Your task to perform on an android device: Open Maps and search for coffee Image 0: 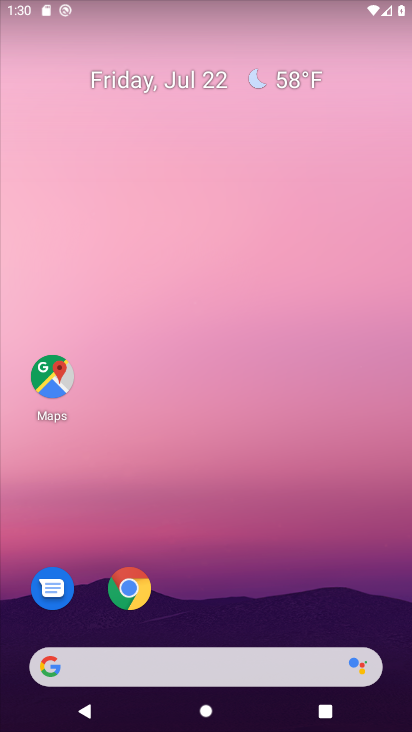
Step 0: drag from (245, 607) to (191, 154)
Your task to perform on an android device: Open Maps and search for coffee Image 1: 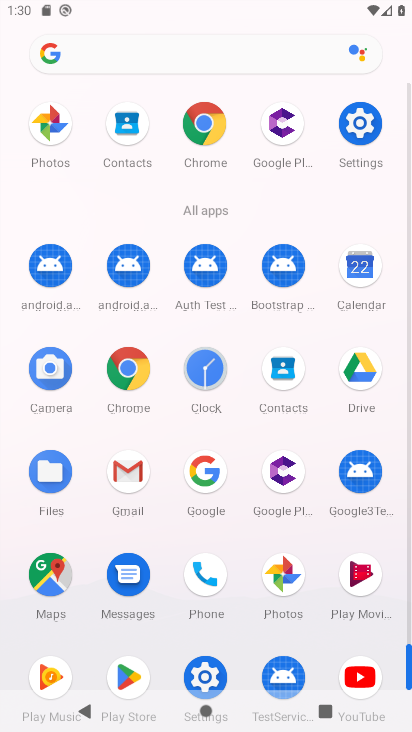
Step 1: click (38, 610)
Your task to perform on an android device: Open Maps and search for coffee Image 2: 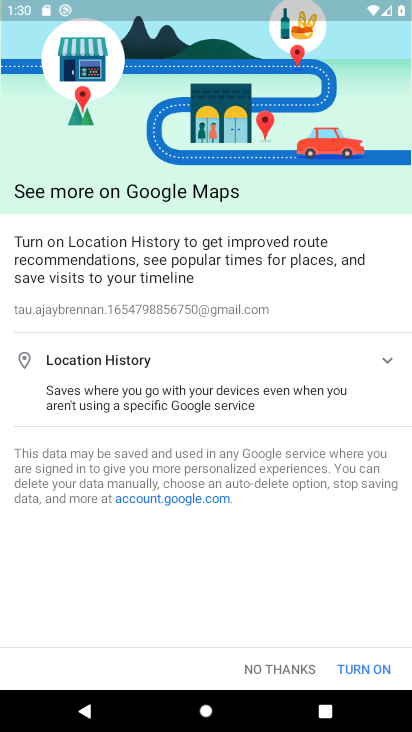
Step 2: click (361, 673)
Your task to perform on an android device: Open Maps and search for coffee Image 3: 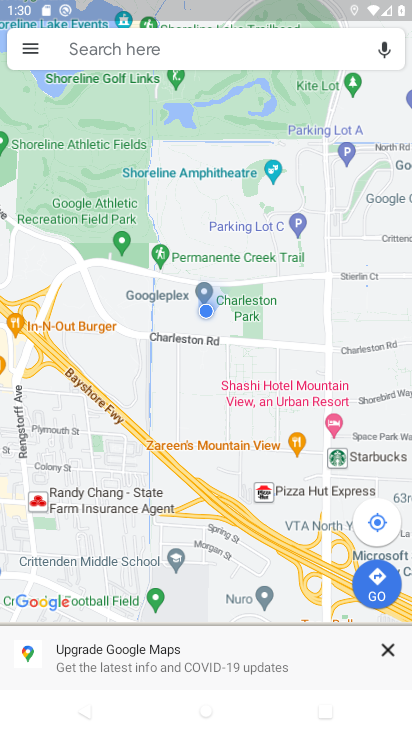
Step 3: click (247, 41)
Your task to perform on an android device: Open Maps and search for coffee Image 4: 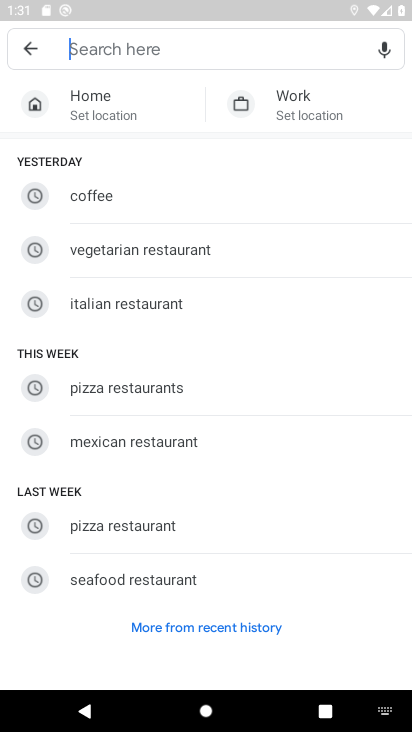
Step 4: type "Wikipedia"
Your task to perform on an android device: Open Maps and search for coffee Image 5: 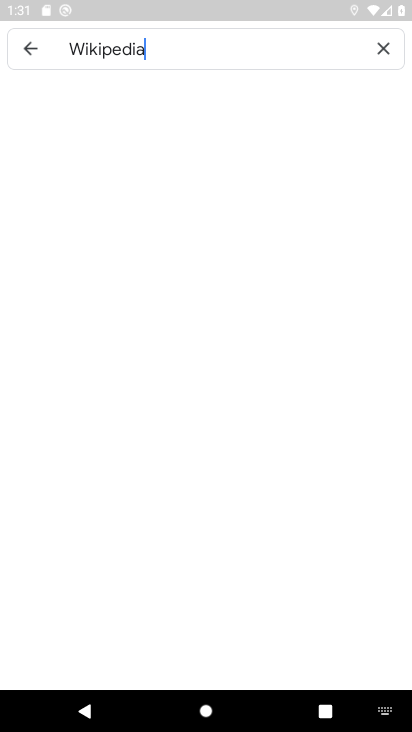
Step 5: type ""
Your task to perform on an android device: Open Maps and search for coffee Image 6: 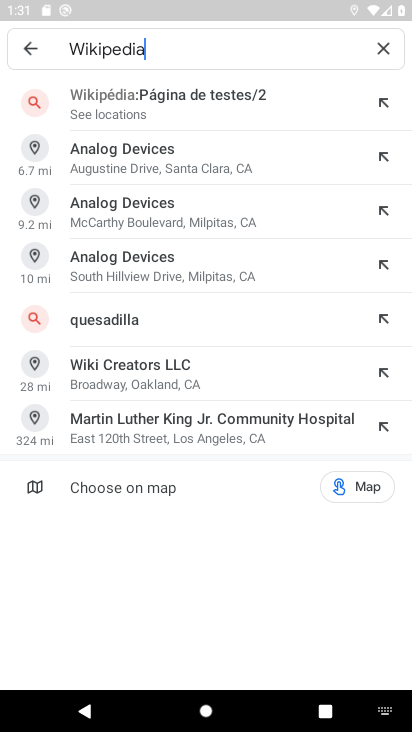
Step 6: click (382, 40)
Your task to perform on an android device: Open Maps and search for coffee Image 7: 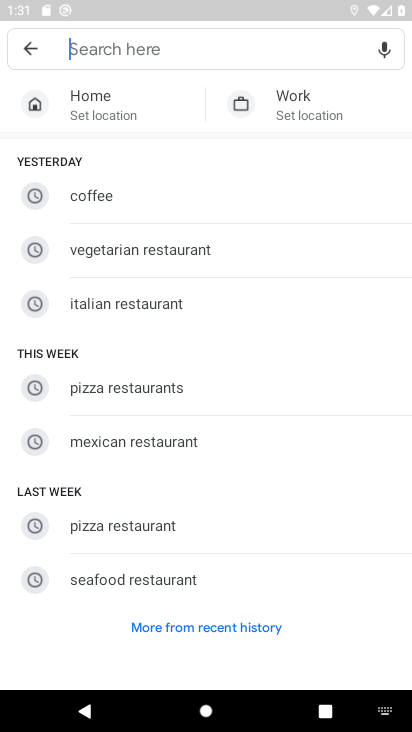
Step 7: click (139, 46)
Your task to perform on an android device: Open Maps and search for coffee Image 8: 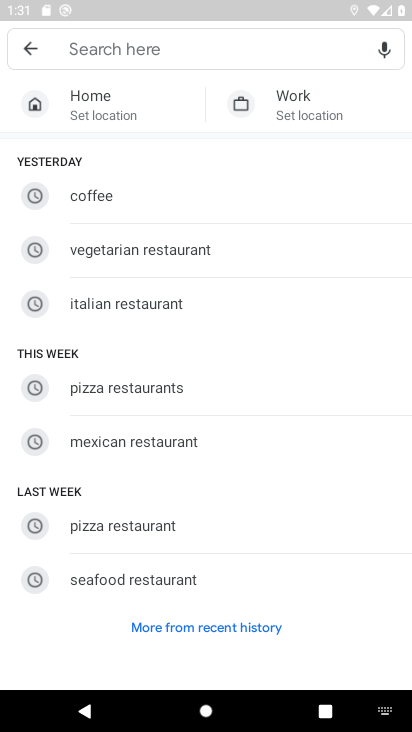
Step 8: click (299, 49)
Your task to perform on an android device: Open Maps and search for coffee Image 9: 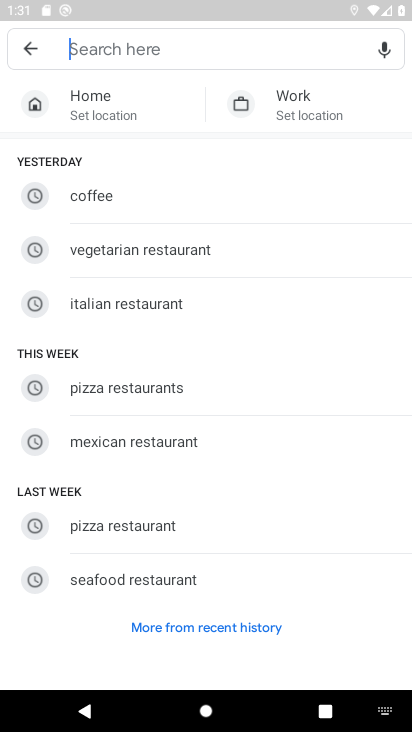
Step 9: type "coffee"
Your task to perform on an android device: Open Maps and search for coffee Image 10: 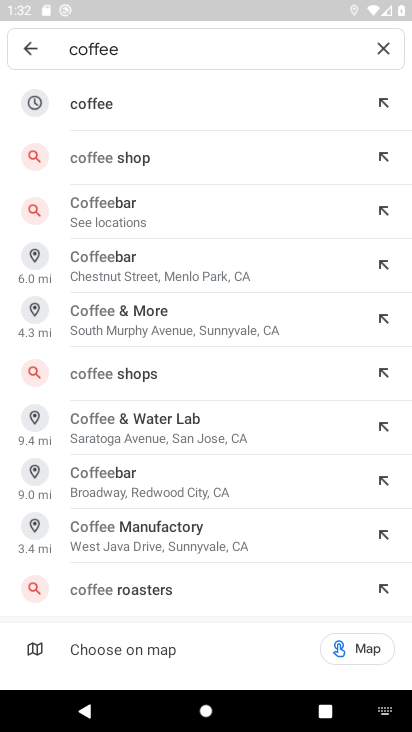
Step 10: click (99, 95)
Your task to perform on an android device: Open Maps and search for coffee Image 11: 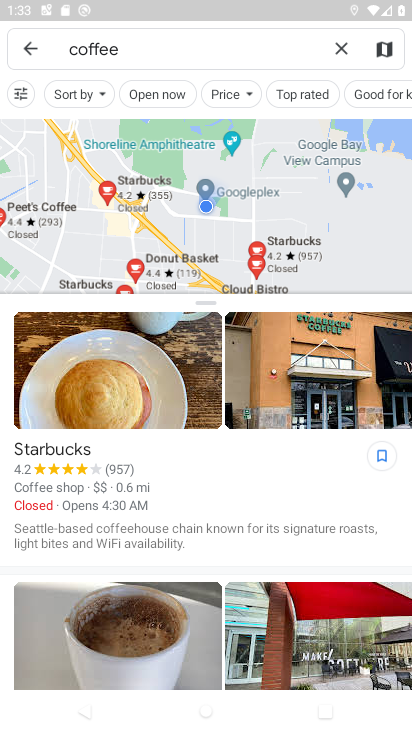
Step 11: task complete